Your task to perform on an android device: toggle sleep mode Image 0: 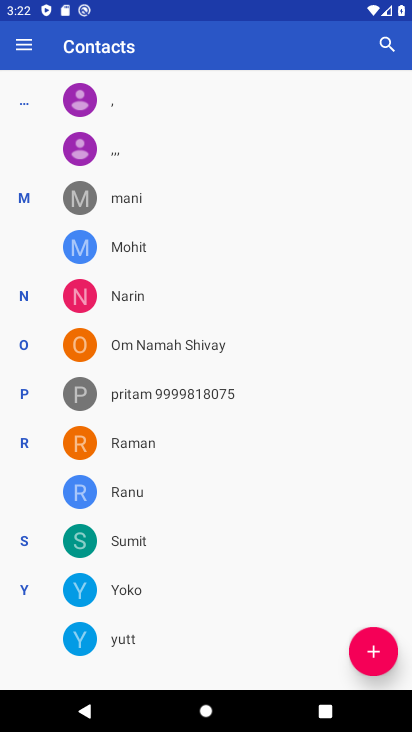
Step 0: press home button
Your task to perform on an android device: toggle sleep mode Image 1: 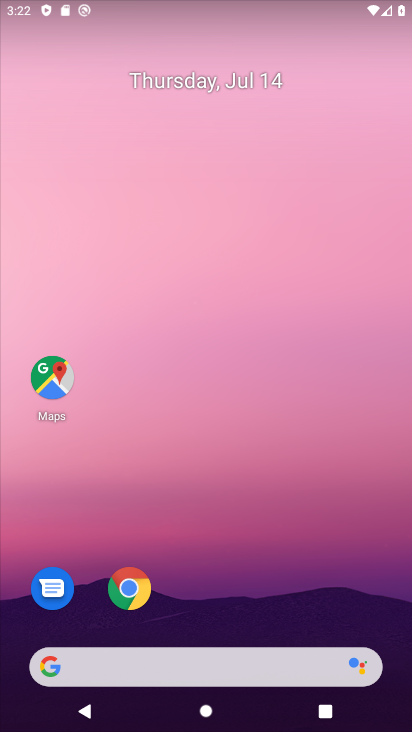
Step 1: drag from (191, 634) to (232, 188)
Your task to perform on an android device: toggle sleep mode Image 2: 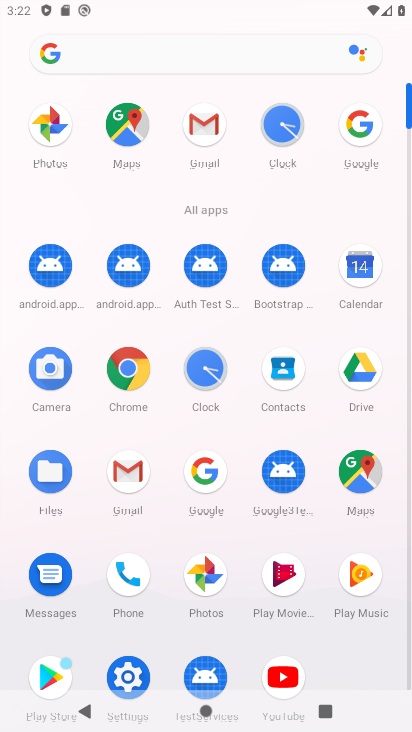
Step 2: click (121, 688)
Your task to perform on an android device: toggle sleep mode Image 3: 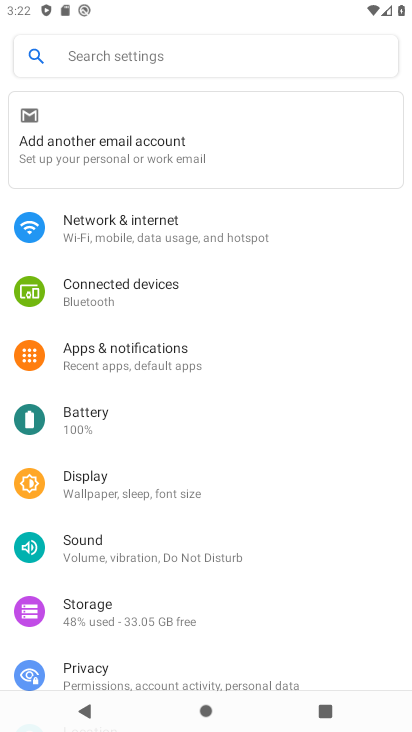
Step 3: click (93, 493)
Your task to perform on an android device: toggle sleep mode Image 4: 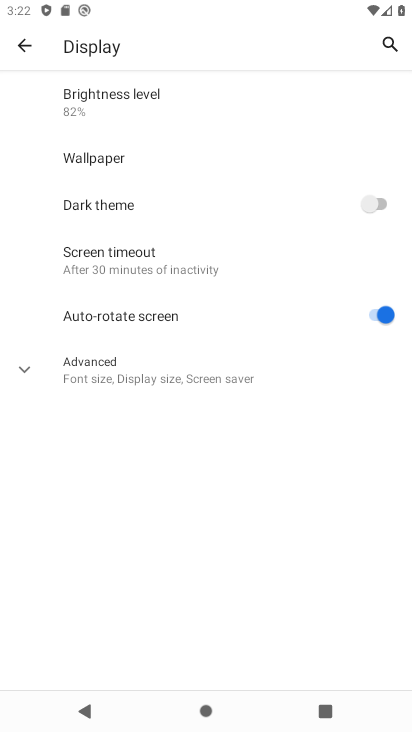
Step 4: click (156, 377)
Your task to perform on an android device: toggle sleep mode Image 5: 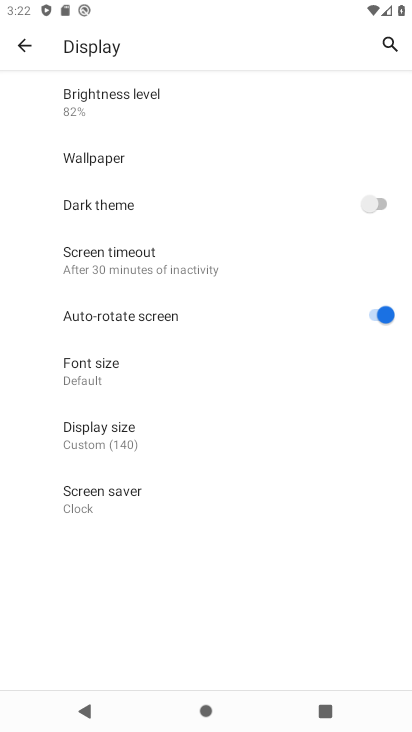
Step 5: task complete